Your task to perform on an android device: check out phone information Image 0: 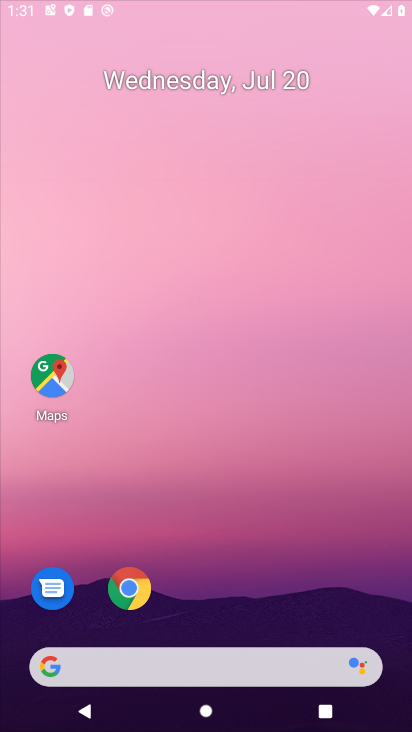
Step 0: drag from (382, 620) to (217, 11)
Your task to perform on an android device: check out phone information Image 1: 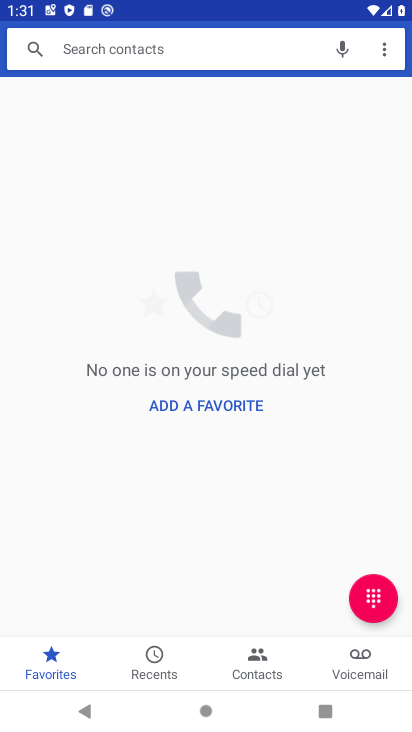
Step 1: press home button
Your task to perform on an android device: check out phone information Image 2: 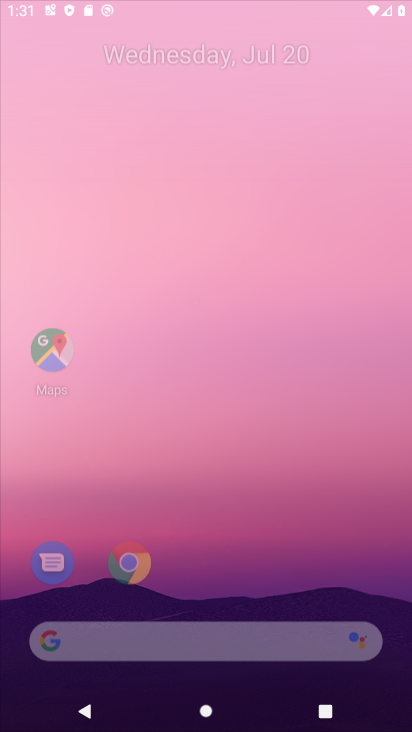
Step 2: drag from (387, 701) to (237, 0)
Your task to perform on an android device: check out phone information Image 3: 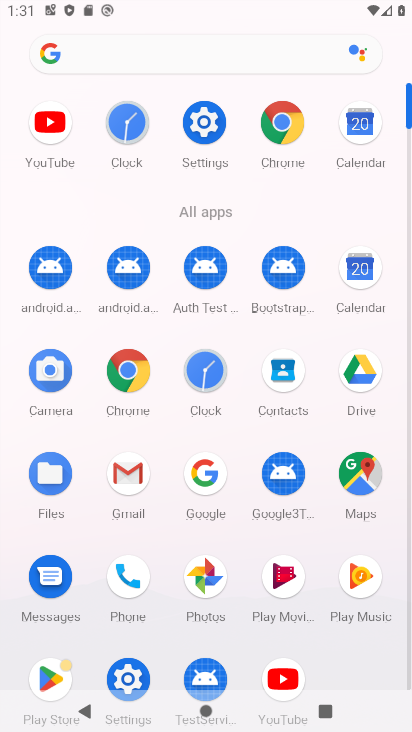
Step 3: click (189, 120)
Your task to perform on an android device: check out phone information Image 4: 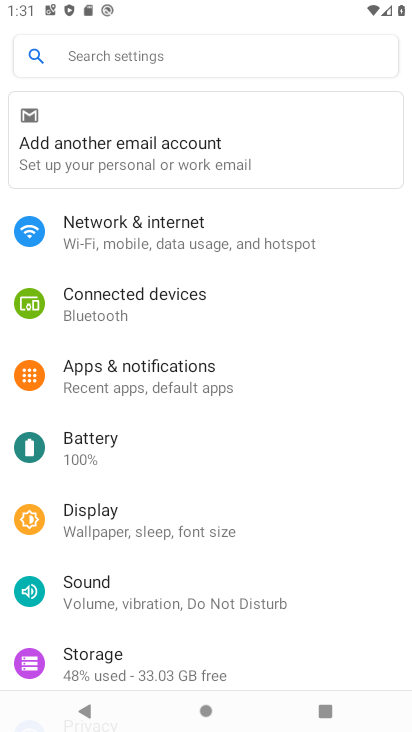
Step 4: task complete